Your task to perform on an android device: turn off notifications settings in the gmail app Image 0: 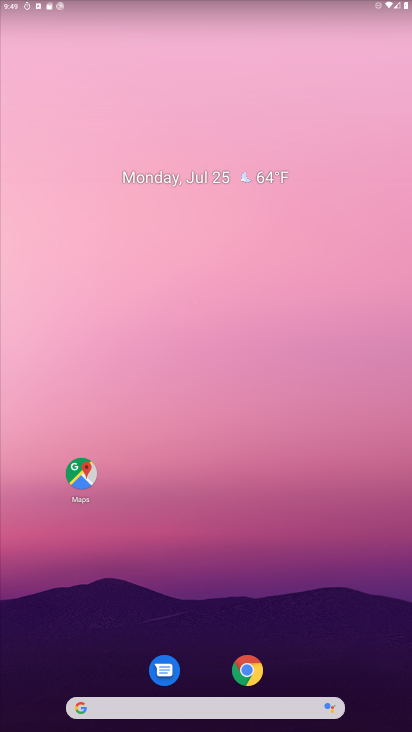
Step 0: drag from (370, 631) to (106, 99)
Your task to perform on an android device: turn off notifications settings in the gmail app Image 1: 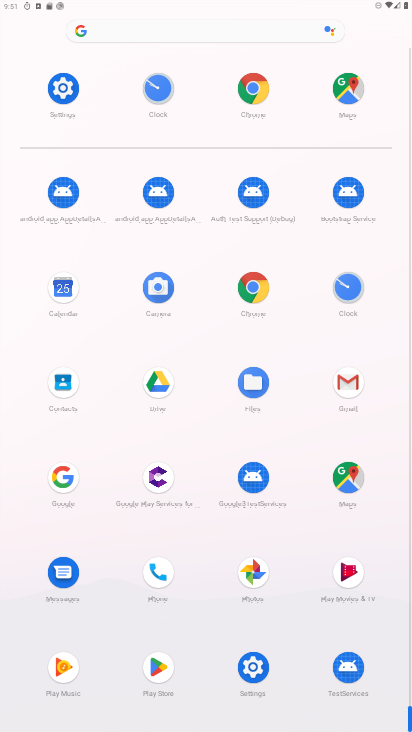
Step 1: click (361, 387)
Your task to perform on an android device: turn off notifications settings in the gmail app Image 2: 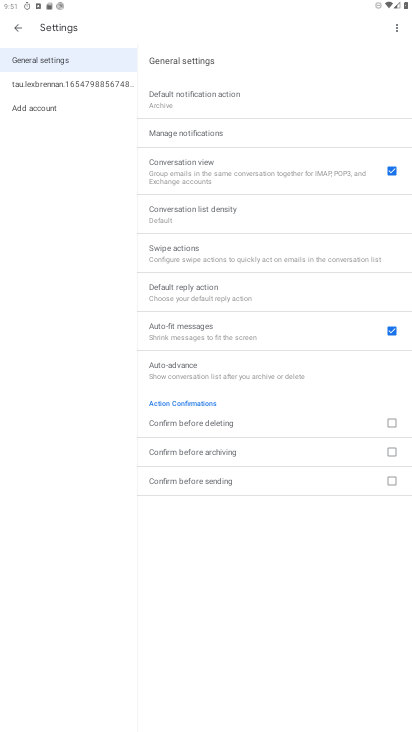
Step 2: click (68, 83)
Your task to perform on an android device: turn off notifications settings in the gmail app Image 3: 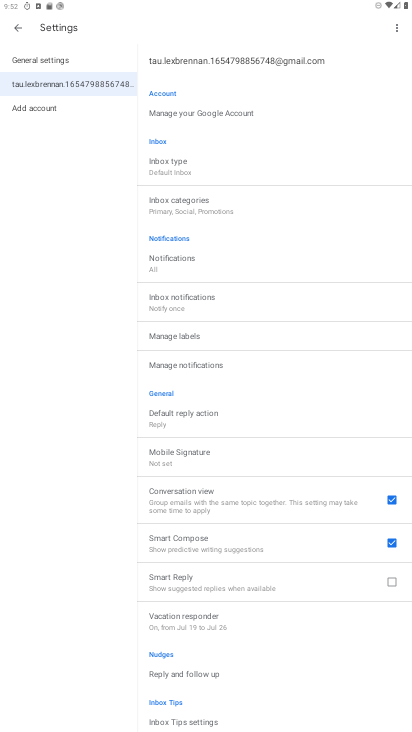
Step 3: click (195, 261)
Your task to perform on an android device: turn off notifications settings in the gmail app Image 4: 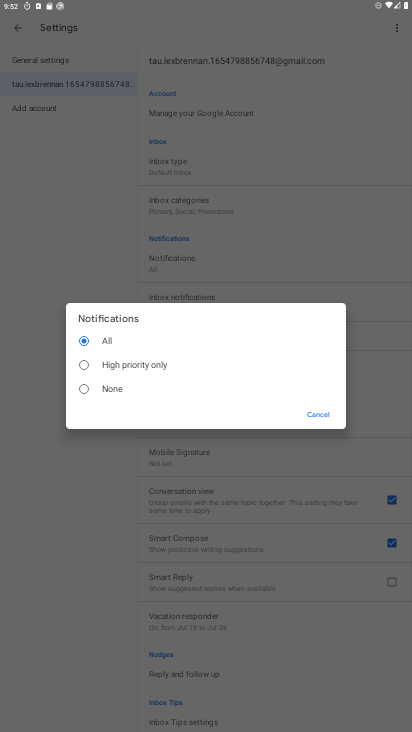
Step 4: click (78, 384)
Your task to perform on an android device: turn off notifications settings in the gmail app Image 5: 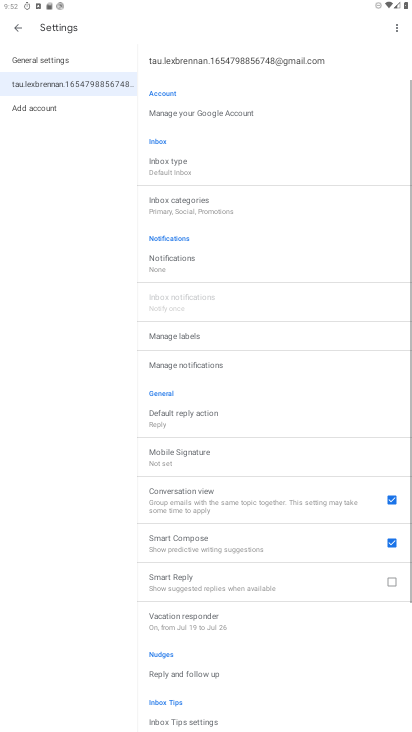
Step 5: task complete